Your task to perform on an android device: Go to Reddit.com Image 0: 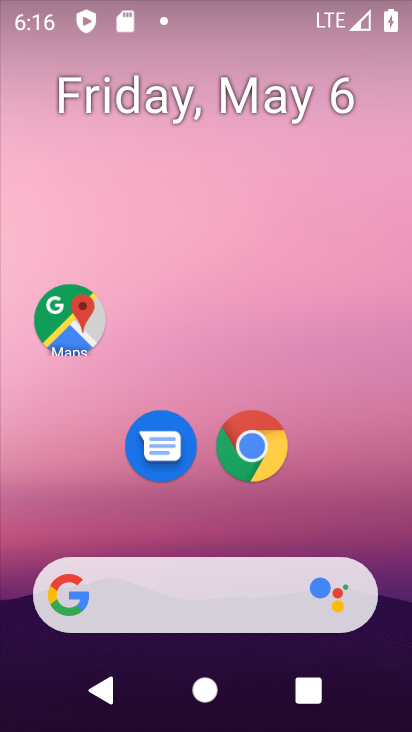
Step 0: click (255, 458)
Your task to perform on an android device: Go to Reddit.com Image 1: 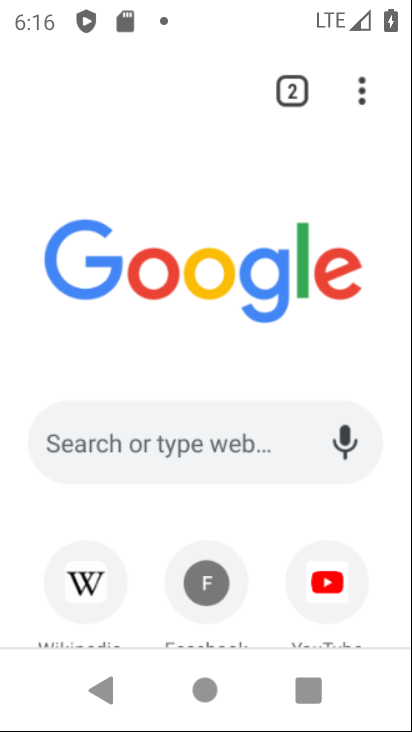
Step 1: drag from (268, 599) to (251, 330)
Your task to perform on an android device: Go to Reddit.com Image 2: 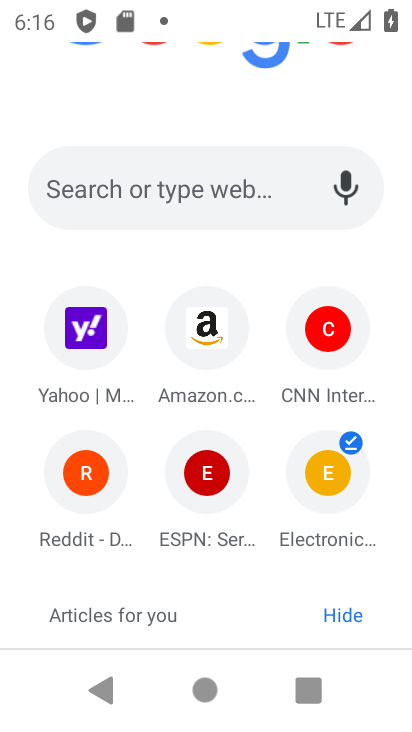
Step 2: click (83, 480)
Your task to perform on an android device: Go to Reddit.com Image 3: 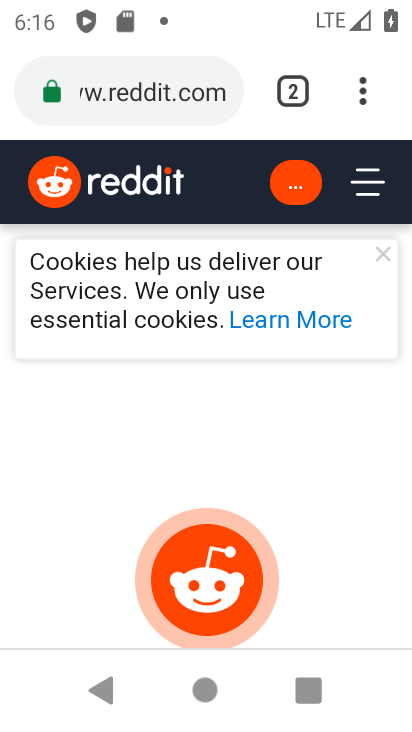
Step 3: task complete